Your task to perform on an android device: see sites visited before in the chrome app Image 0: 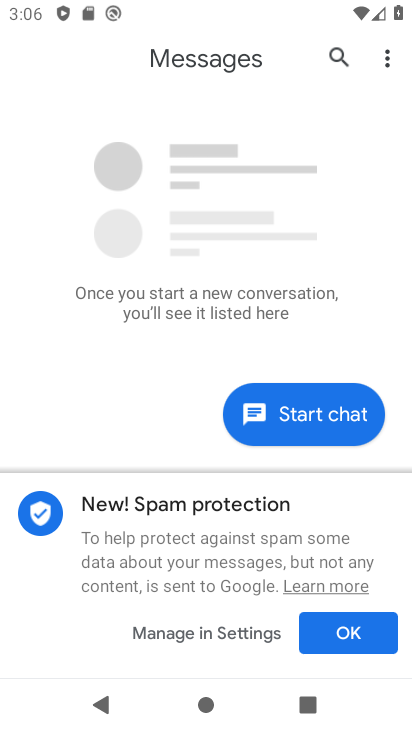
Step 0: press home button
Your task to perform on an android device: see sites visited before in the chrome app Image 1: 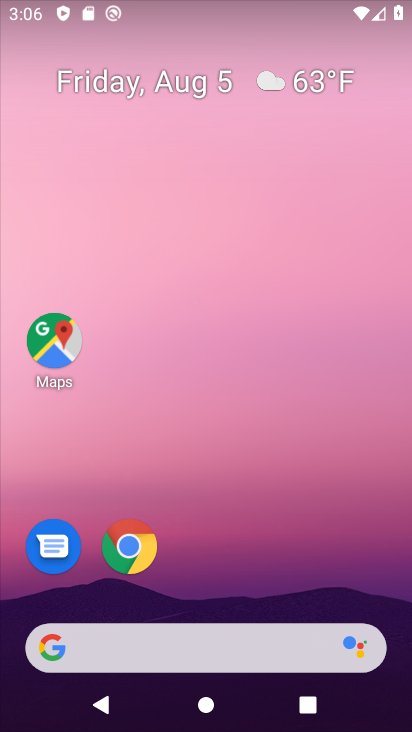
Step 1: drag from (317, 569) to (324, 112)
Your task to perform on an android device: see sites visited before in the chrome app Image 2: 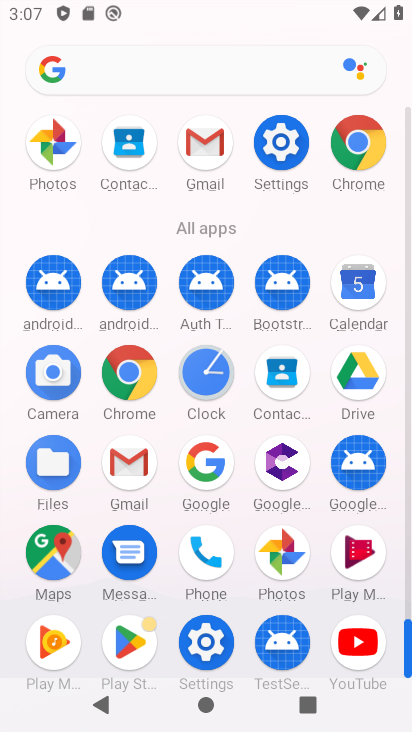
Step 2: click (131, 375)
Your task to perform on an android device: see sites visited before in the chrome app Image 3: 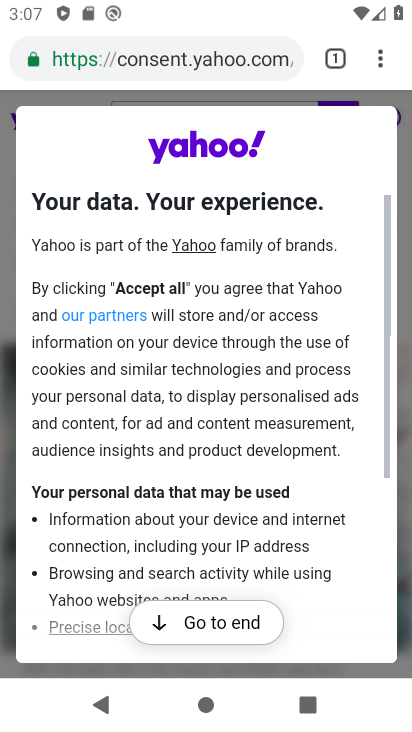
Step 3: click (381, 61)
Your task to perform on an android device: see sites visited before in the chrome app Image 4: 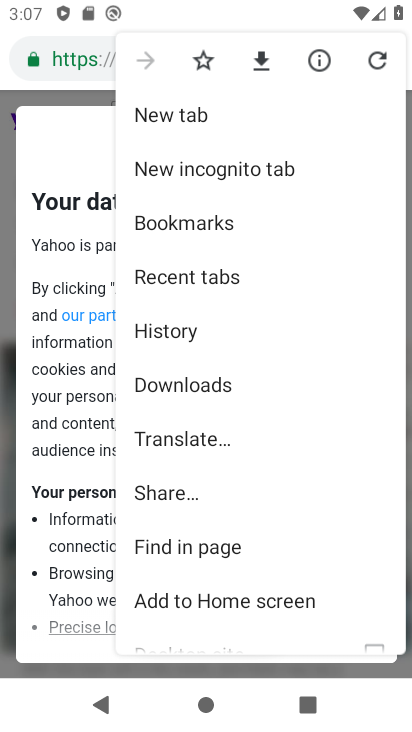
Step 4: click (201, 330)
Your task to perform on an android device: see sites visited before in the chrome app Image 5: 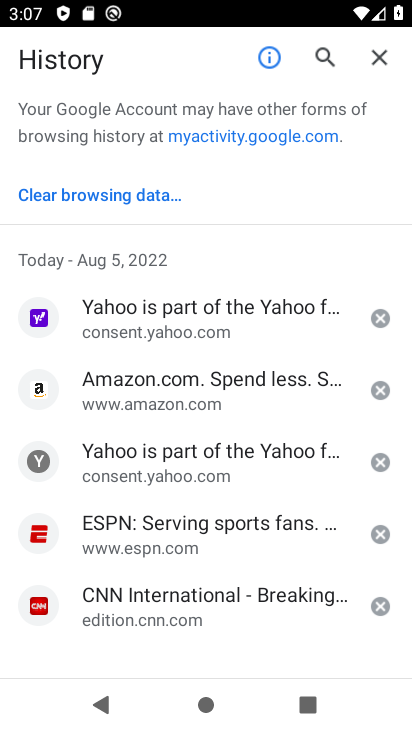
Step 5: task complete